Your task to perform on an android device: refresh tabs in the chrome app Image 0: 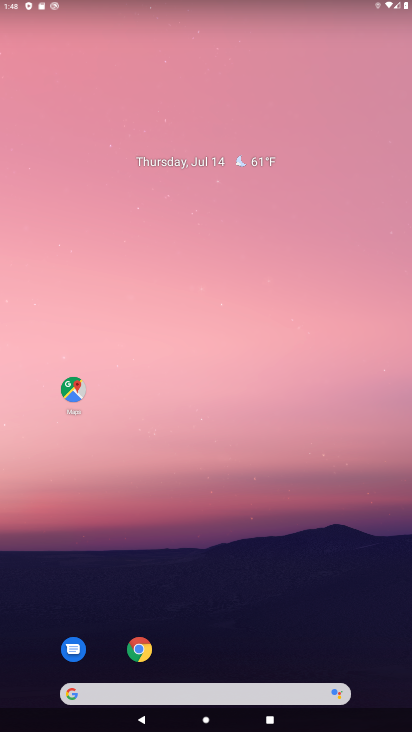
Step 0: press home button
Your task to perform on an android device: refresh tabs in the chrome app Image 1: 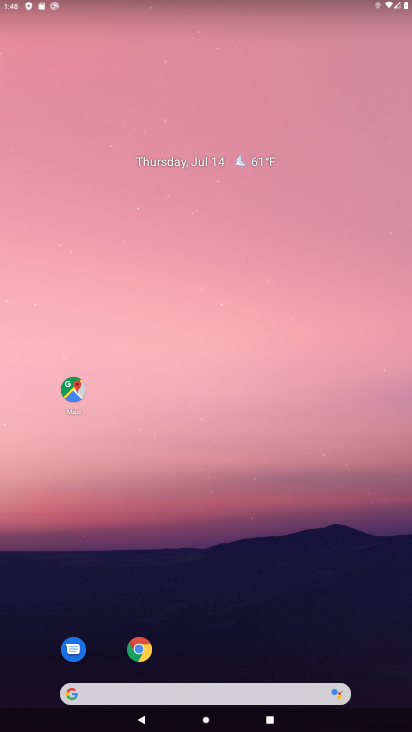
Step 1: click (133, 644)
Your task to perform on an android device: refresh tabs in the chrome app Image 2: 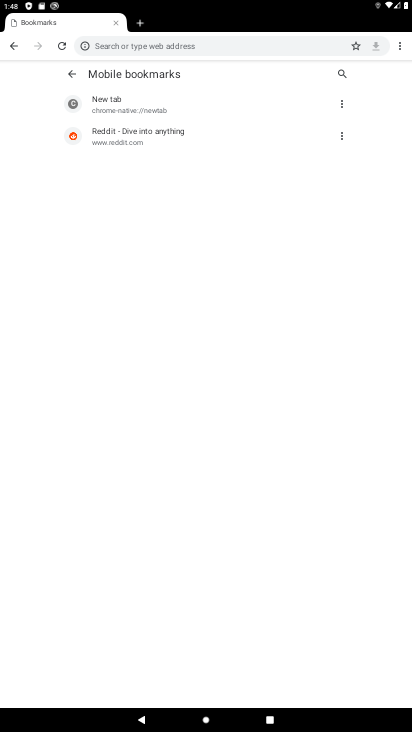
Step 2: click (140, 17)
Your task to perform on an android device: refresh tabs in the chrome app Image 3: 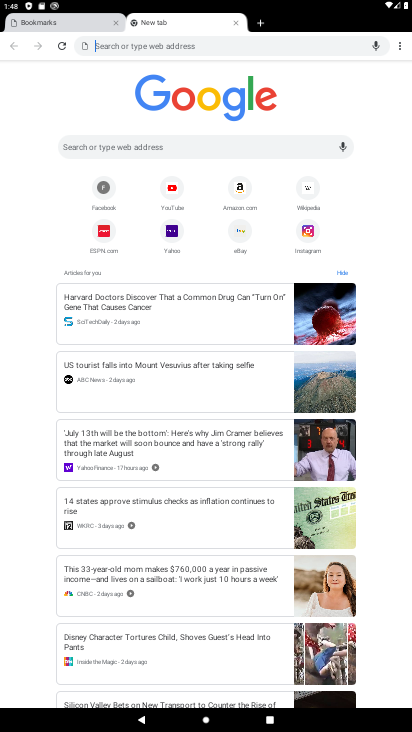
Step 3: click (61, 44)
Your task to perform on an android device: refresh tabs in the chrome app Image 4: 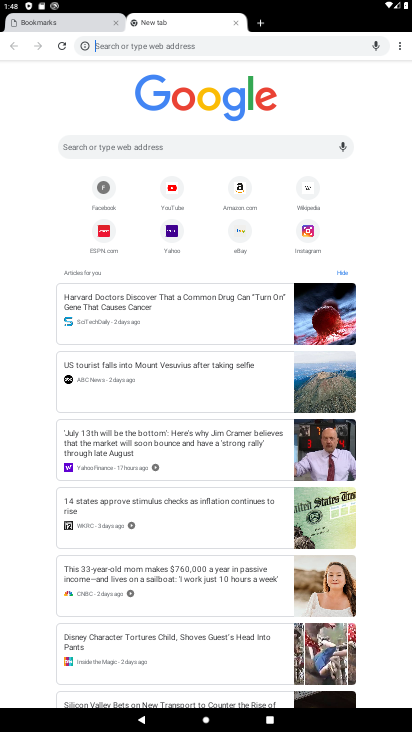
Step 4: task complete